Your task to perform on an android device: Search for seafood restaurants on Google Maps Image 0: 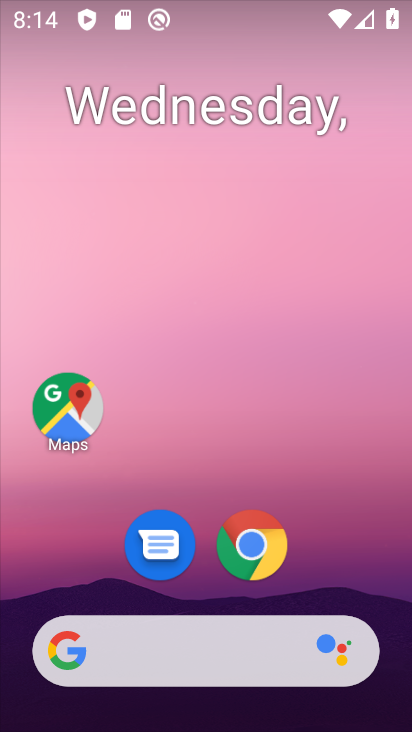
Step 0: click (56, 398)
Your task to perform on an android device: Search for seafood restaurants on Google Maps Image 1: 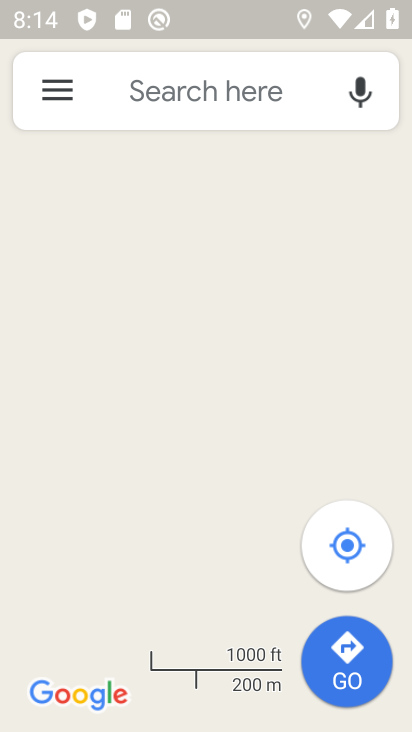
Step 1: click (198, 98)
Your task to perform on an android device: Search for seafood restaurants on Google Maps Image 2: 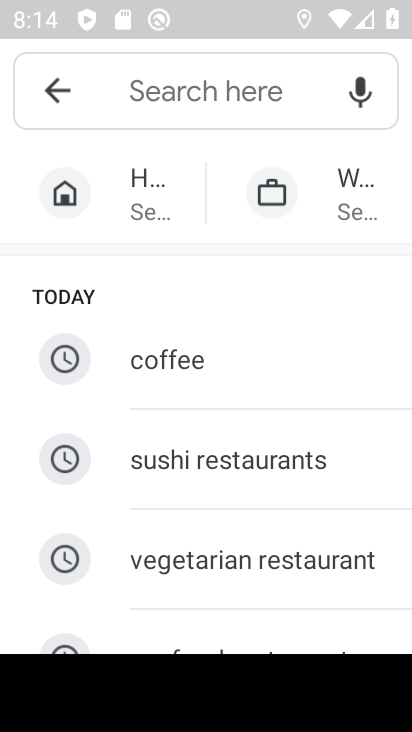
Step 2: drag from (277, 568) to (325, 118)
Your task to perform on an android device: Search for seafood restaurants on Google Maps Image 3: 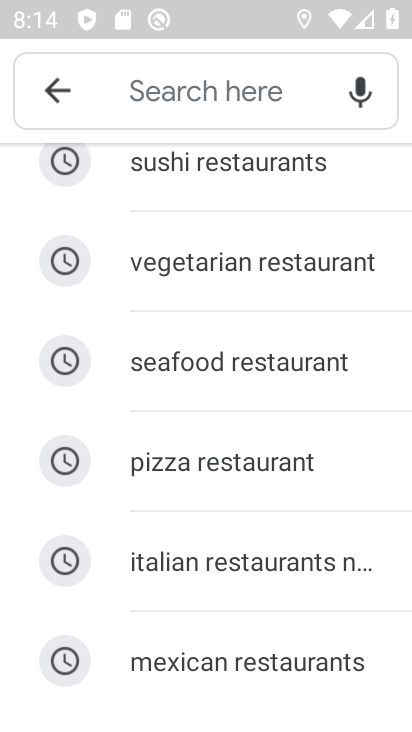
Step 3: click (200, 372)
Your task to perform on an android device: Search for seafood restaurants on Google Maps Image 4: 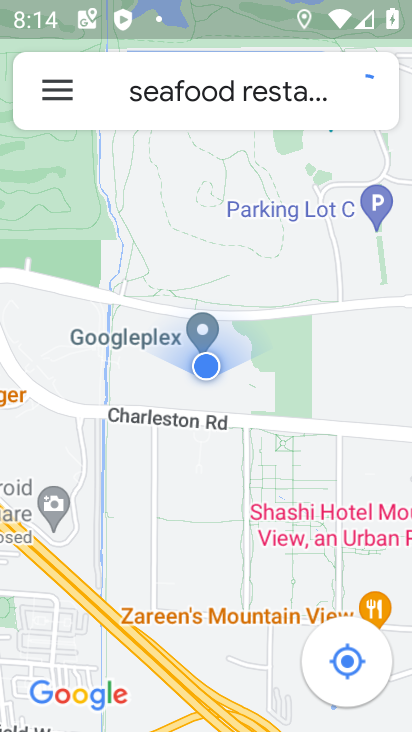
Step 4: click (232, 386)
Your task to perform on an android device: Search for seafood restaurants on Google Maps Image 5: 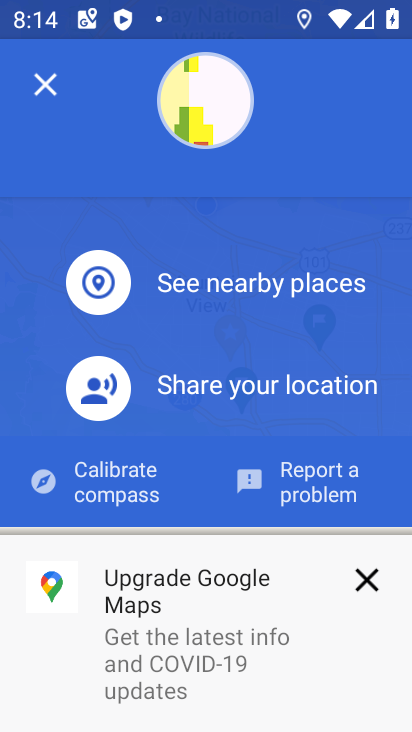
Step 5: task complete